Your task to perform on an android device: Is it going to rain this weekend? Image 0: 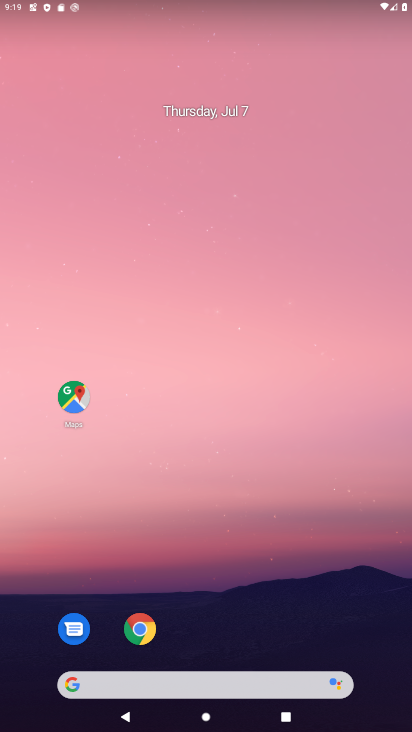
Step 0: click (216, 680)
Your task to perform on an android device: Is it going to rain this weekend? Image 1: 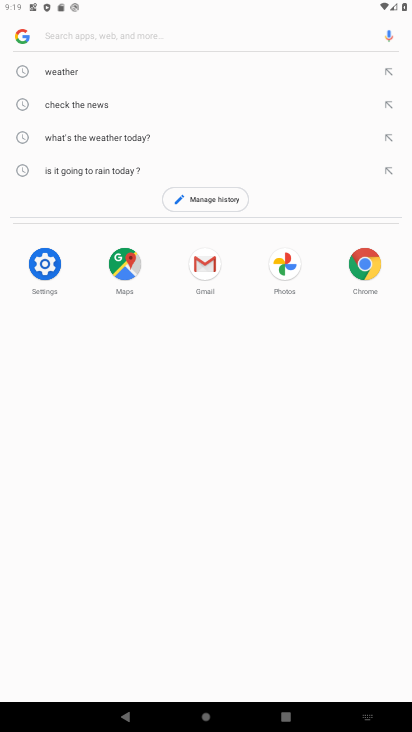
Step 1: click (109, 166)
Your task to perform on an android device: Is it going to rain this weekend? Image 2: 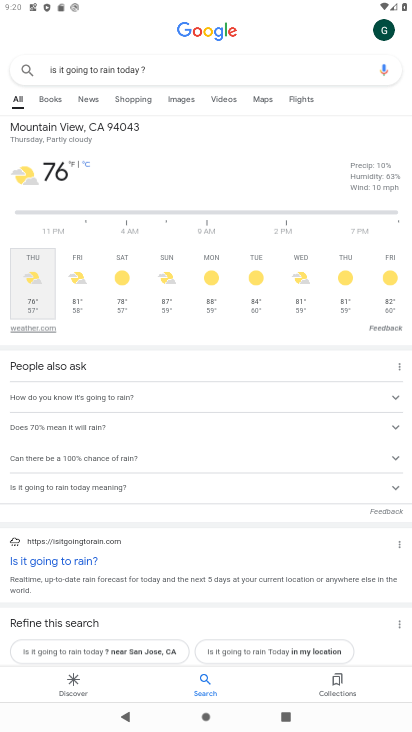
Step 2: task complete